Your task to perform on an android device: Open Amazon Image 0: 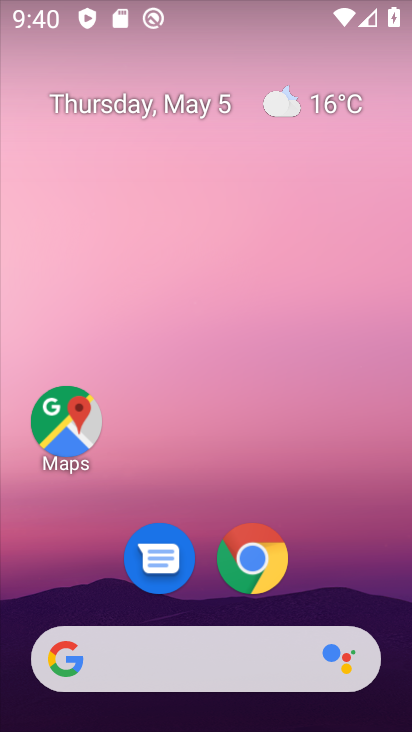
Step 0: click (279, 566)
Your task to perform on an android device: Open Amazon Image 1: 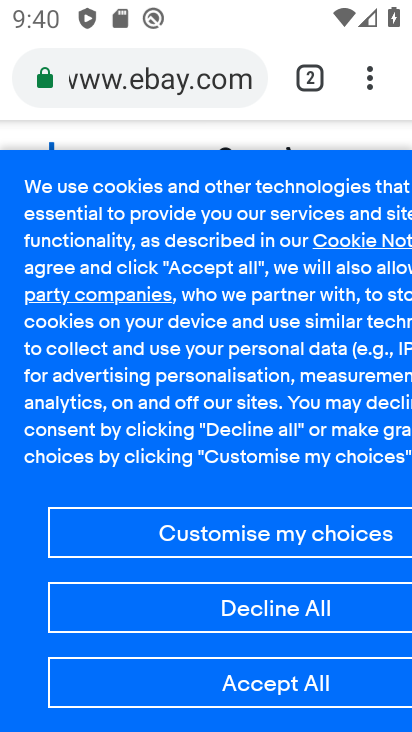
Step 1: click (309, 87)
Your task to perform on an android device: Open Amazon Image 2: 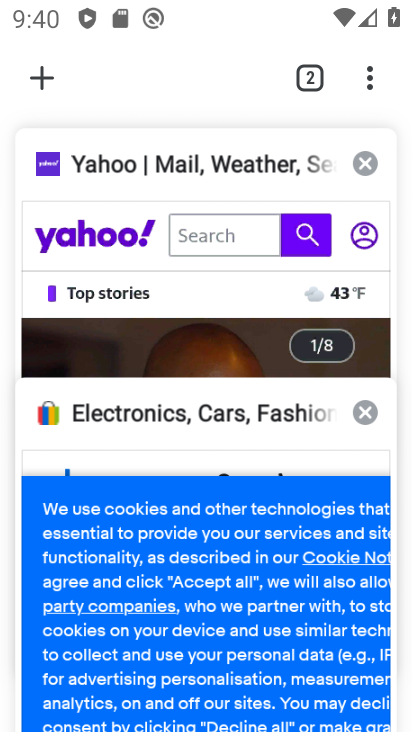
Step 2: click (46, 74)
Your task to perform on an android device: Open Amazon Image 3: 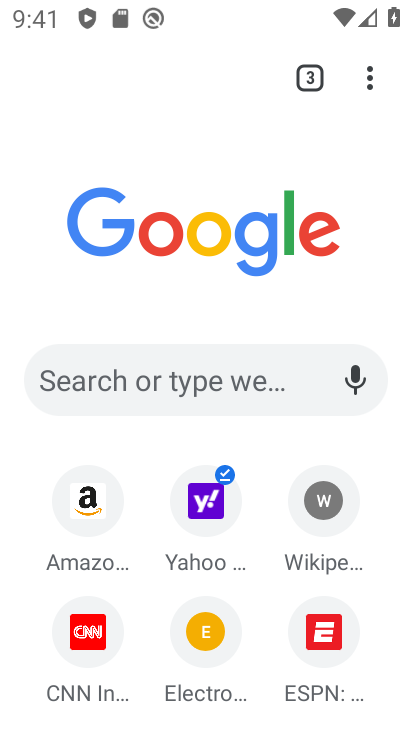
Step 3: click (101, 480)
Your task to perform on an android device: Open Amazon Image 4: 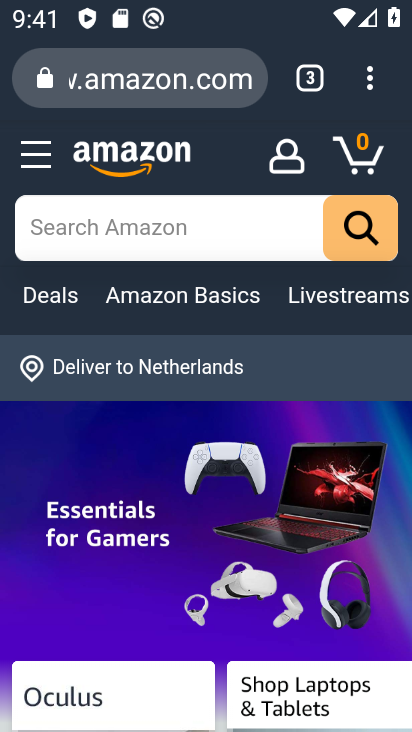
Step 4: task complete